Your task to perform on an android device: Open CNN.com Image 0: 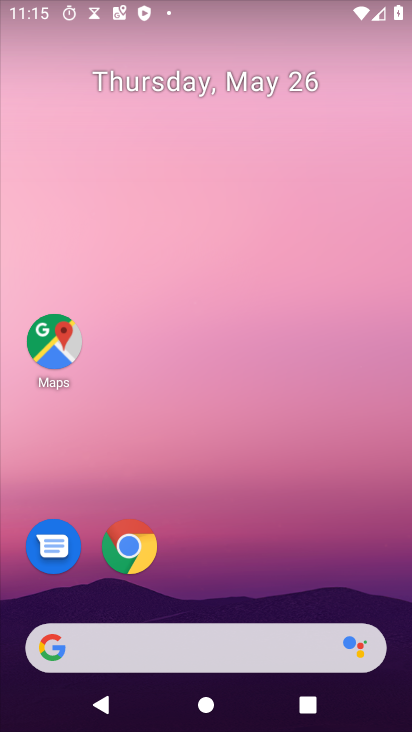
Step 0: drag from (368, 579) to (354, 179)
Your task to perform on an android device: Open CNN.com Image 1: 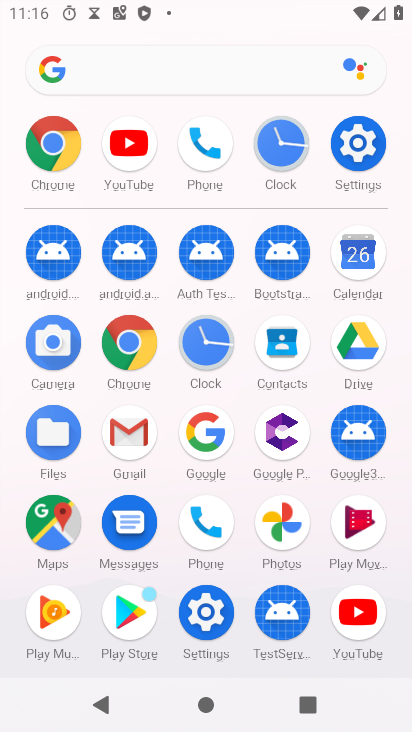
Step 1: click (150, 341)
Your task to perform on an android device: Open CNN.com Image 2: 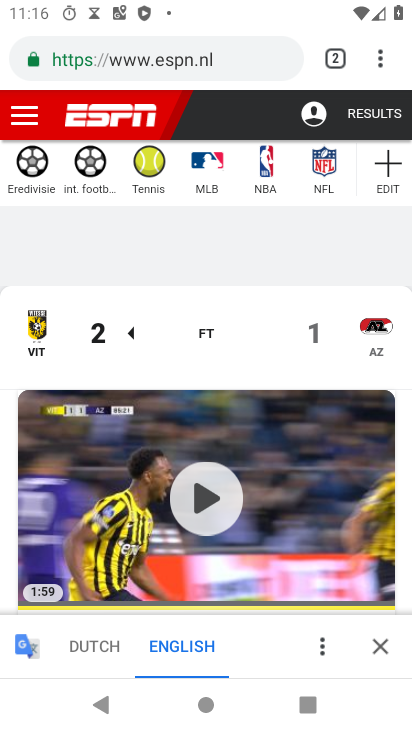
Step 2: click (162, 62)
Your task to perform on an android device: Open CNN.com Image 3: 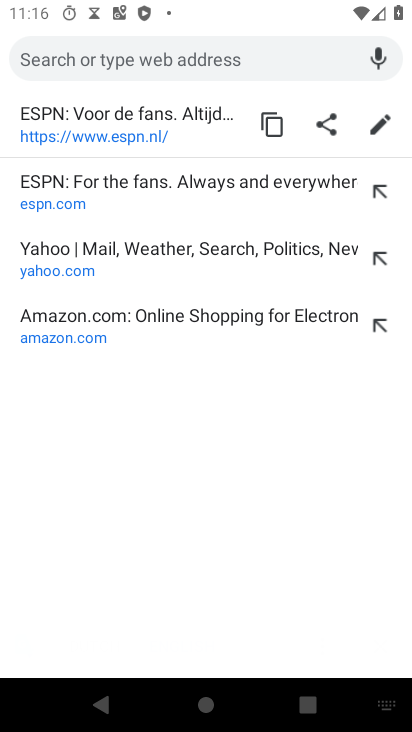
Step 3: type "cnn.com"
Your task to perform on an android device: Open CNN.com Image 4: 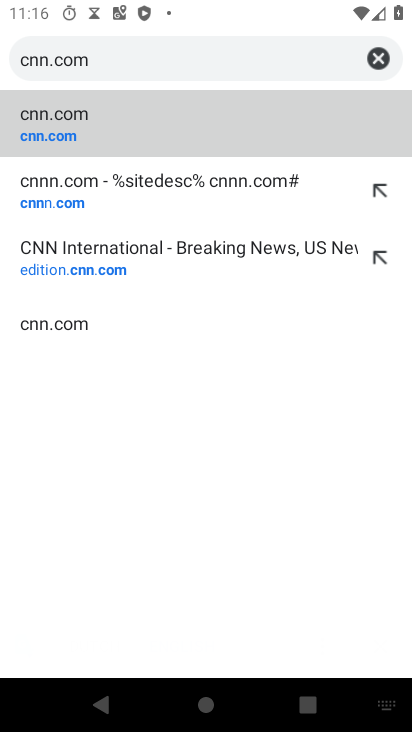
Step 4: click (119, 123)
Your task to perform on an android device: Open CNN.com Image 5: 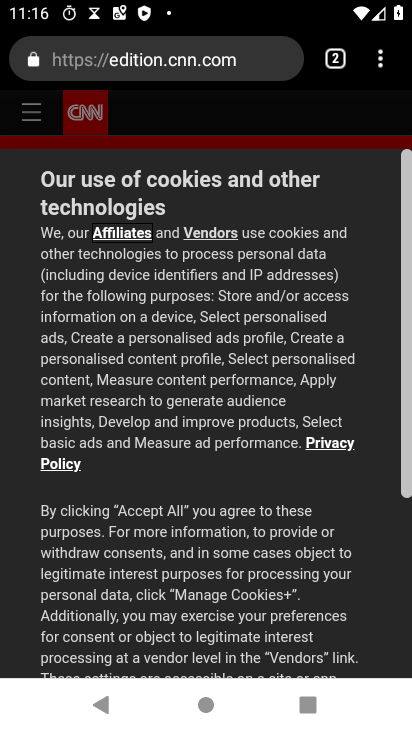
Step 5: task complete